Your task to perform on an android device: turn on sleep mode Image 0: 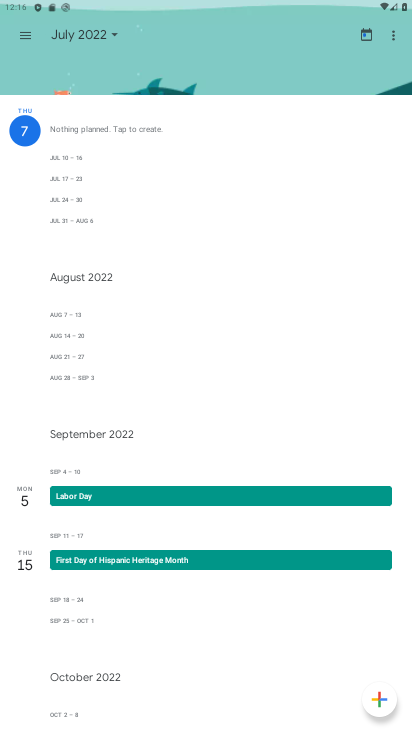
Step 0: press home button
Your task to perform on an android device: turn on sleep mode Image 1: 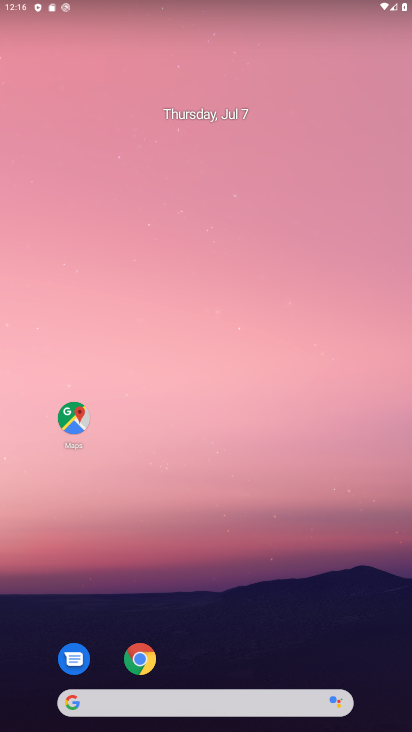
Step 1: drag from (215, 589) to (139, 166)
Your task to perform on an android device: turn on sleep mode Image 2: 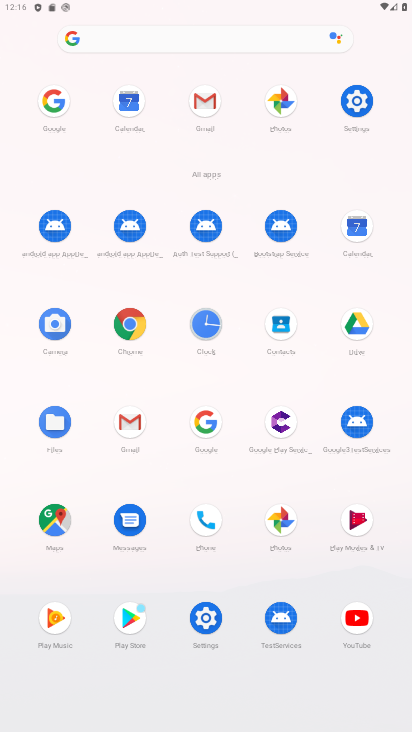
Step 2: click (355, 106)
Your task to perform on an android device: turn on sleep mode Image 3: 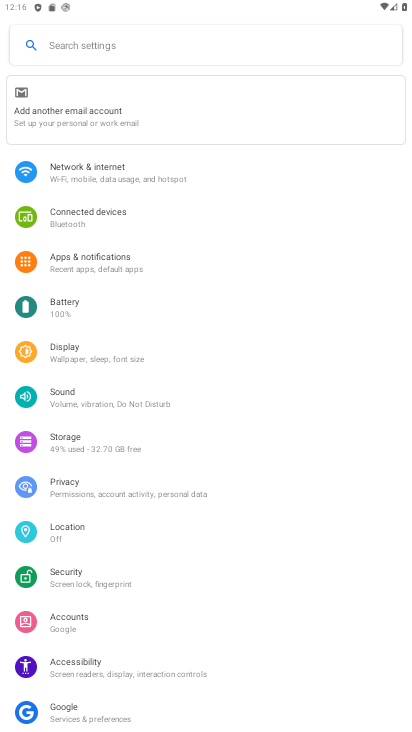
Step 3: click (53, 349)
Your task to perform on an android device: turn on sleep mode Image 4: 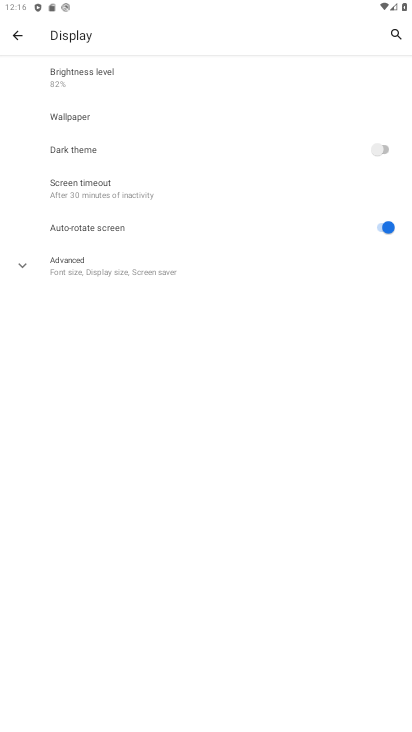
Step 4: task complete